Your task to perform on an android device: Show me popular videos on Youtube Image 0: 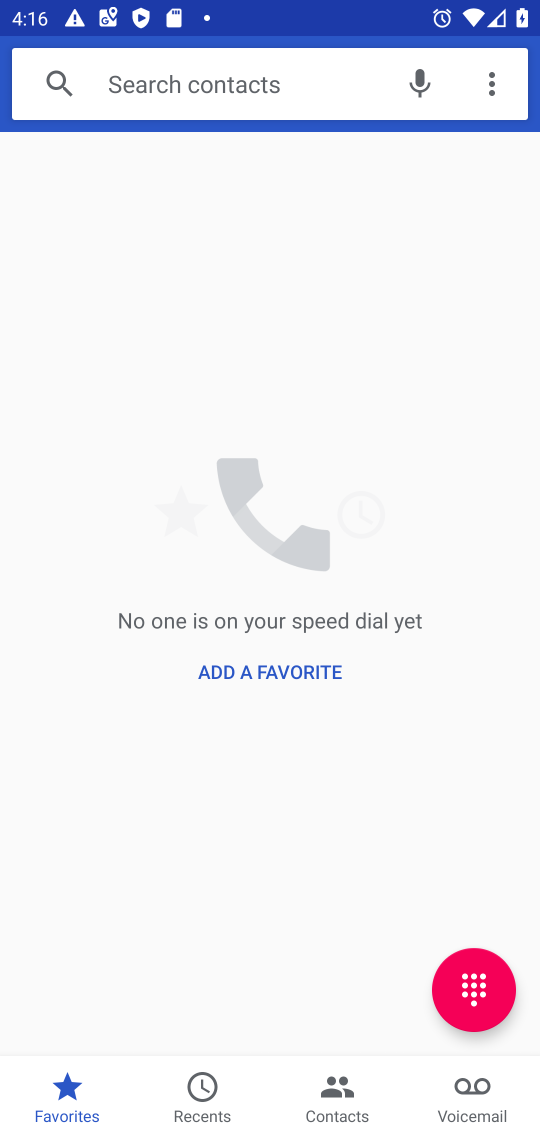
Step 0: press home button
Your task to perform on an android device: Show me popular videos on Youtube Image 1: 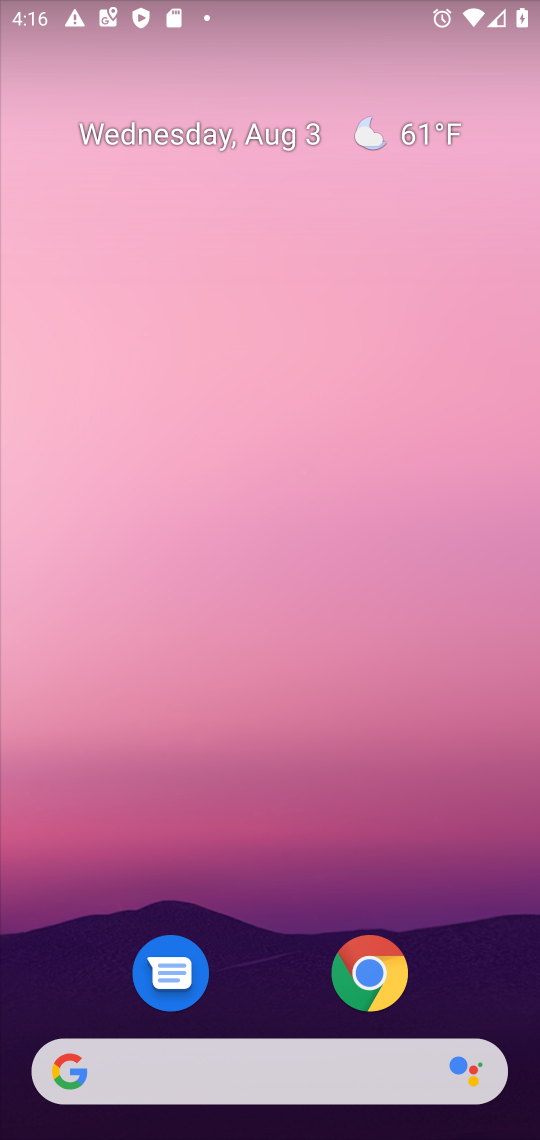
Step 1: drag from (281, 899) to (453, 42)
Your task to perform on an android device: Show me popular videos on Youtube Image 2: 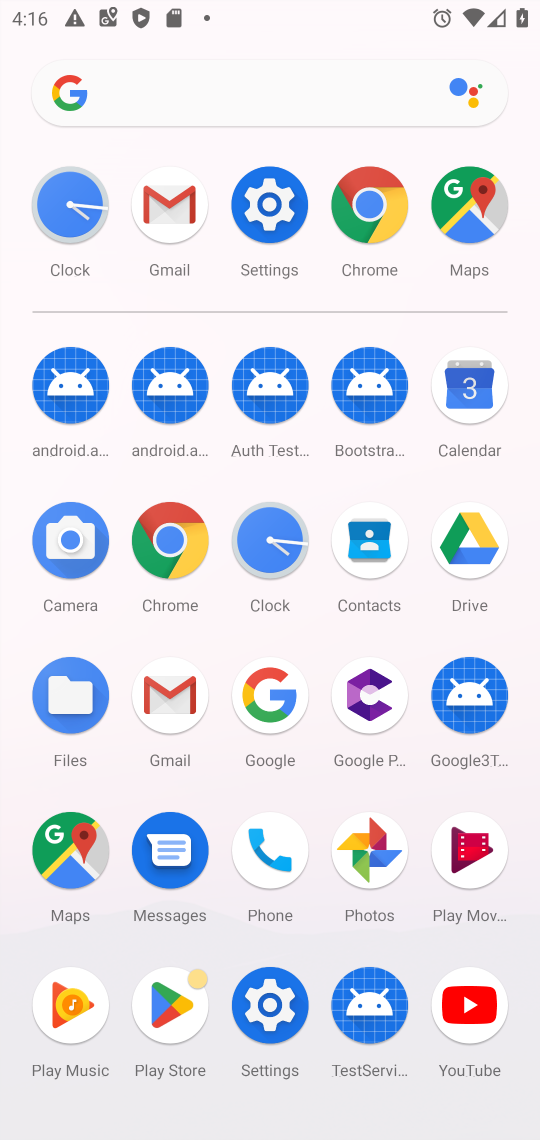
Step 2: click (465, 1005)
Your task to perform on an android device: Show me popular videos on Youtube Image 3: 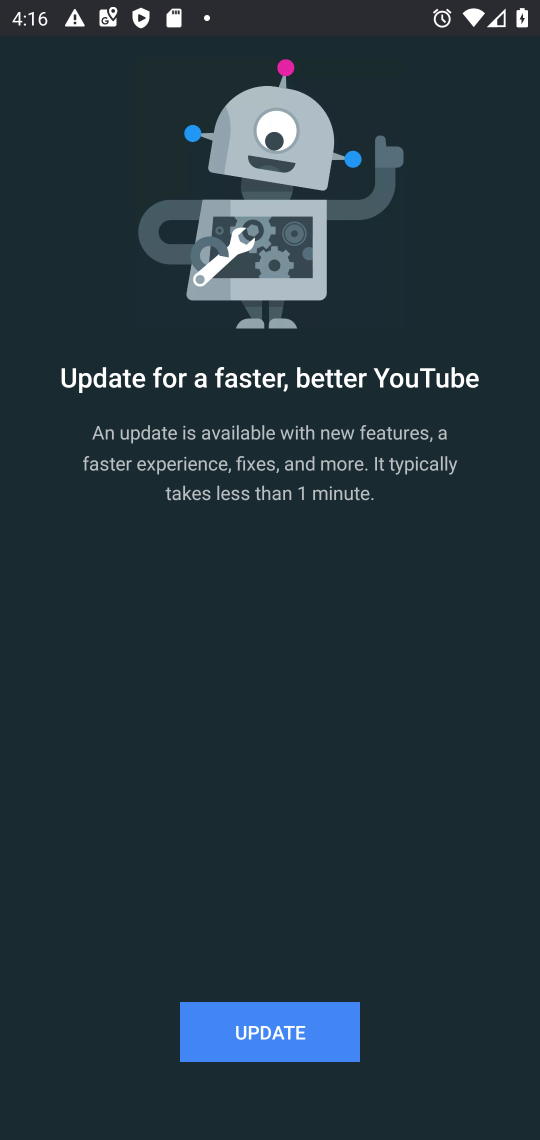
Step 3: click (315, 1040)
Your task to perform on an android device: Show me popular videos on Youtube Image 4: 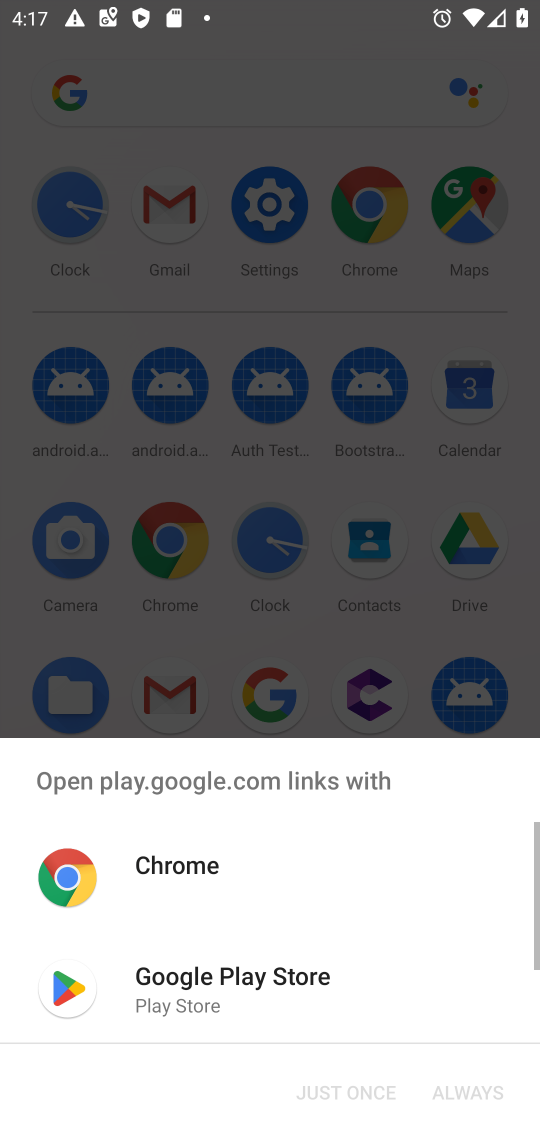
Step 4: click (228, 988)
Your task to perform on an android device: Show me popular videos on Youtube Image 5: 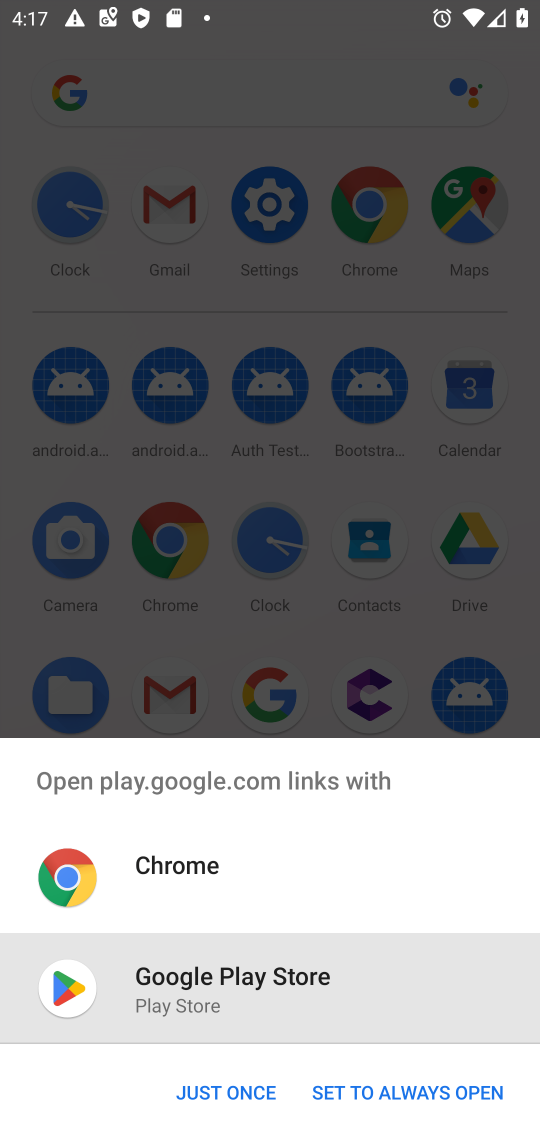
Step 5: click (248, 1088)
Your task to perform on an android device: Show me popular videos on Youtube Image 6: 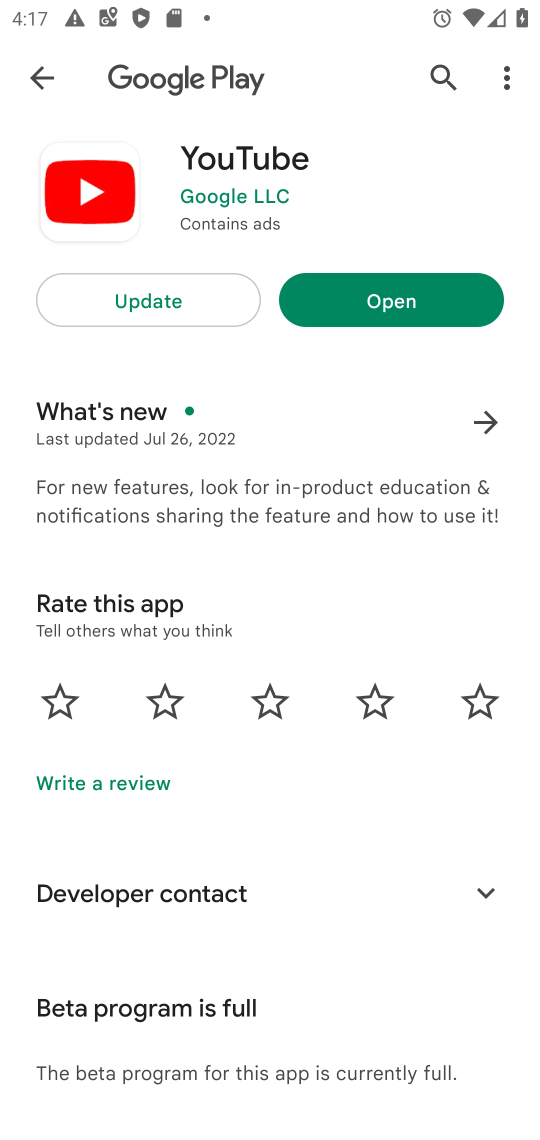
Step 6: click (196, 288)
Your task to perform on an android device: Show me popular videos on Youtube Image 7: 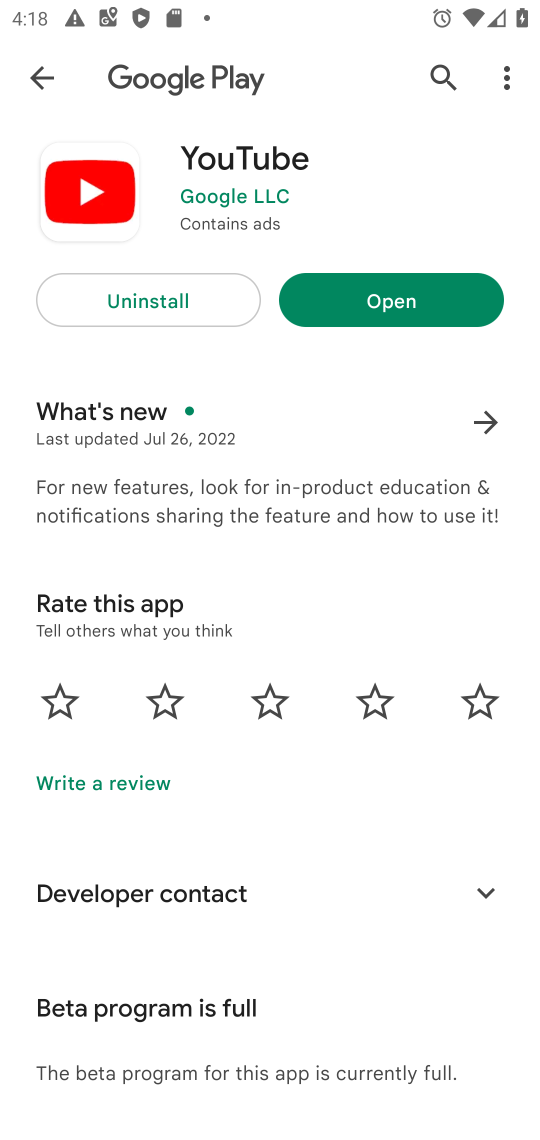
Step 7: click (424, 304)
Your task to perform on an android device: Show me popular videos on Youtube Image 8: 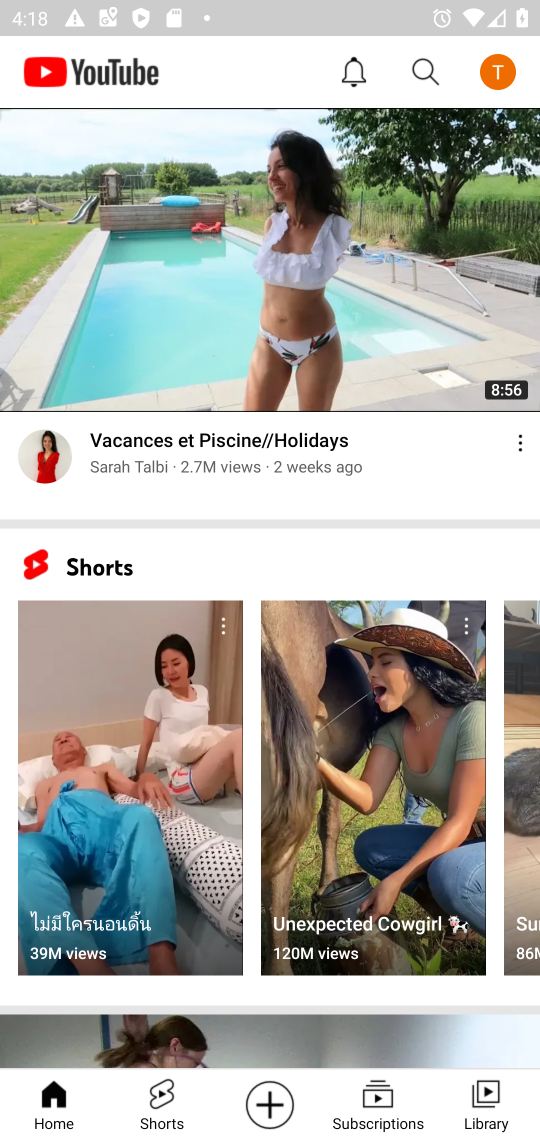
Step 8: click (421, 59)
Your task to perform on an android device: Show me popular videos on Youtube Image 9: 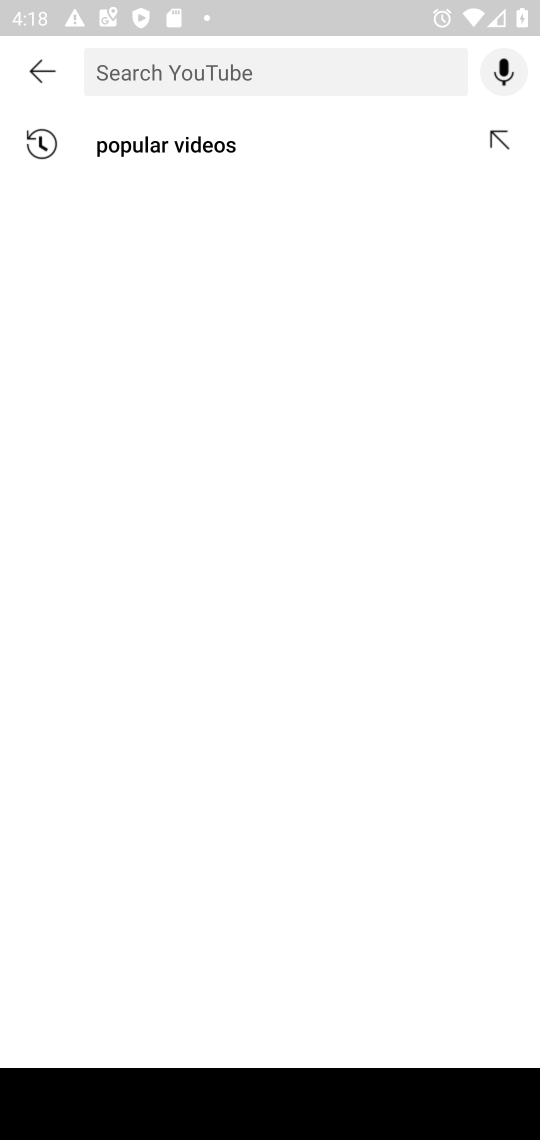
Step 9: click (205, 134)
Your task to perform on an android device: Show me popular videos on Youtube Image 10: 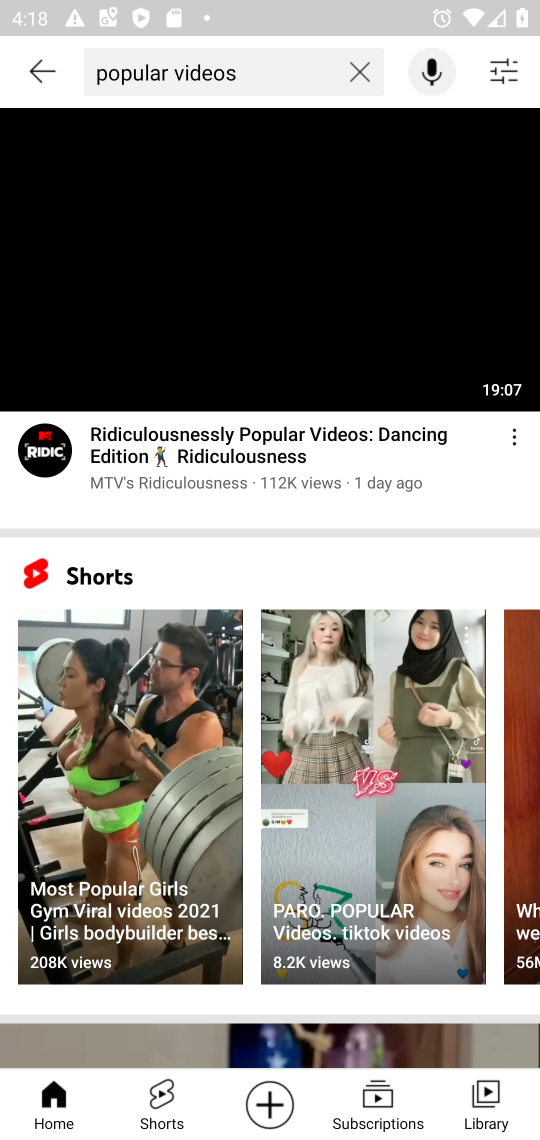
Step 10: click (268, 250)
Your task to perform on an android device: Show me popular videos on Youtube Image 11: 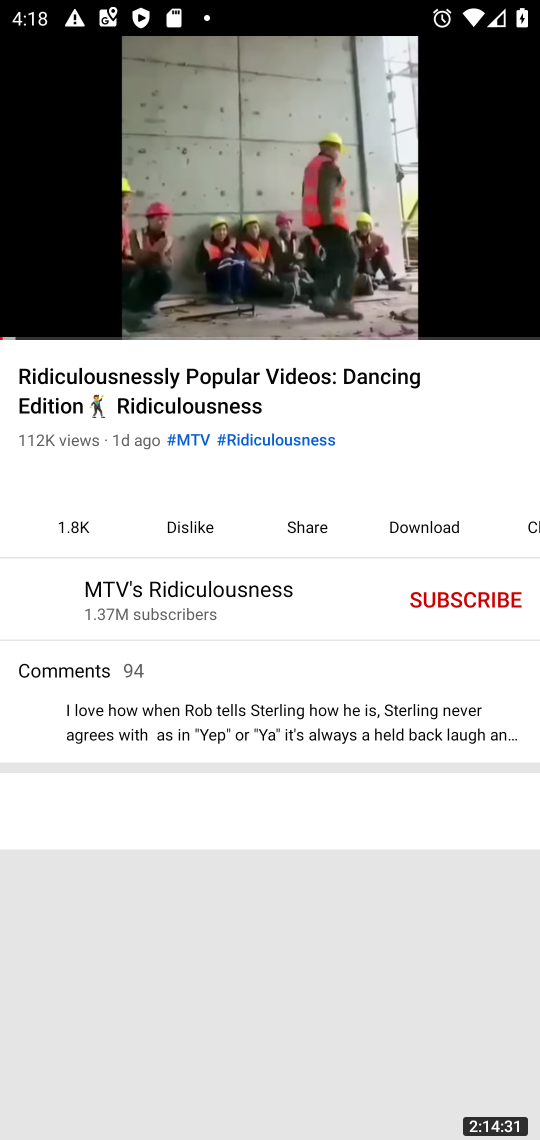
Step 11: task complete